Your task to perform on an android device: turn on translation in the chrome app Image 0: 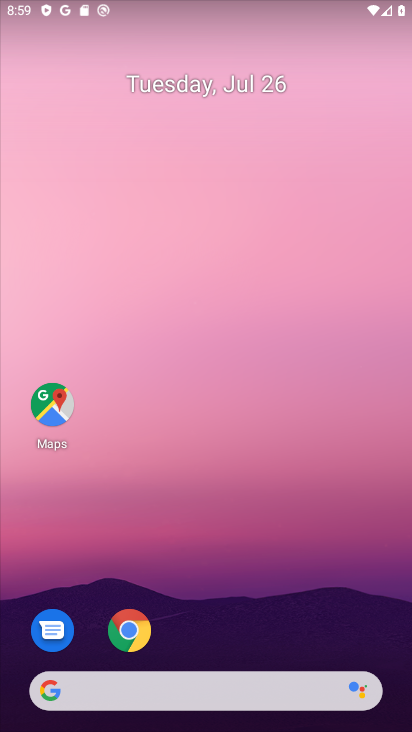
Step 0: click (123, 631)
Your task to perform on an android device: turn on translation in the chrome app Image 1: 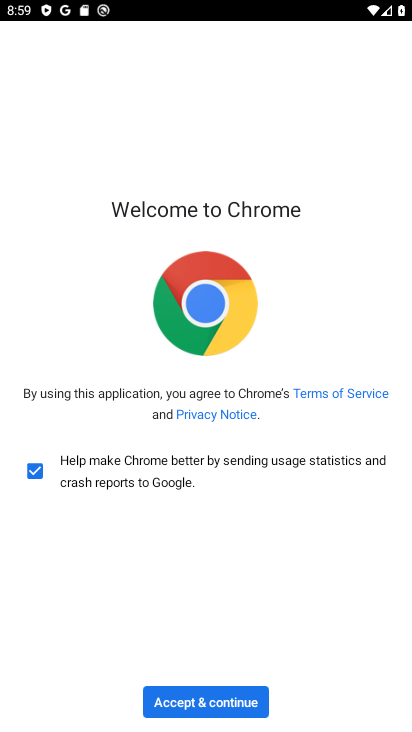
Step 1: click (249, 710)
Your task to perform on an android device: turn on translation in the chrome app Image 2: 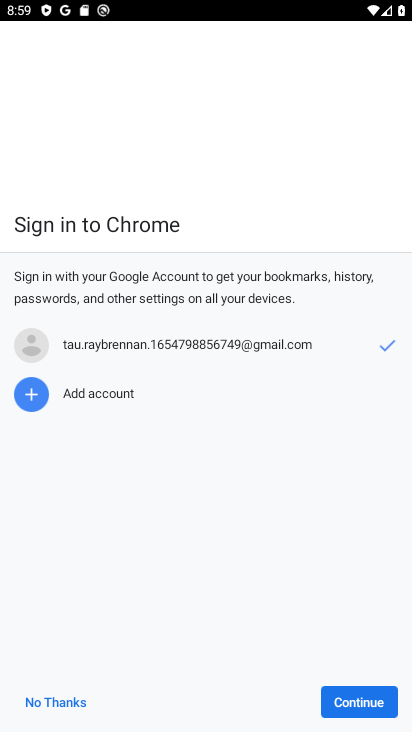
Step 2: click (340, 703)
Your task to perform on an android device: turn on translation in the chrome app Image 3: 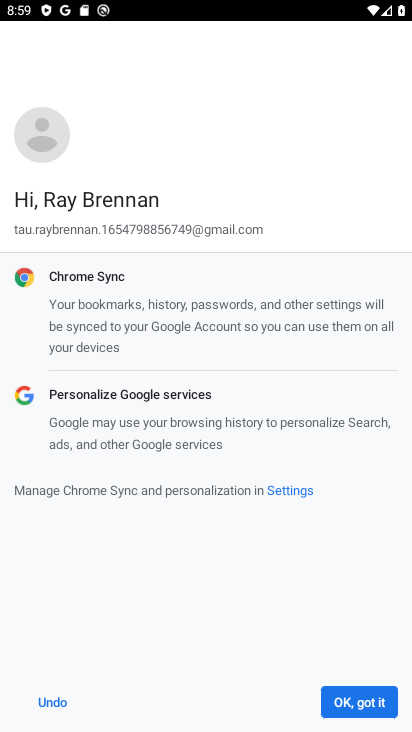
Step 3: click (340, 703)
Your task to perform on an android device: turn on translation in the chrome app Image 4: 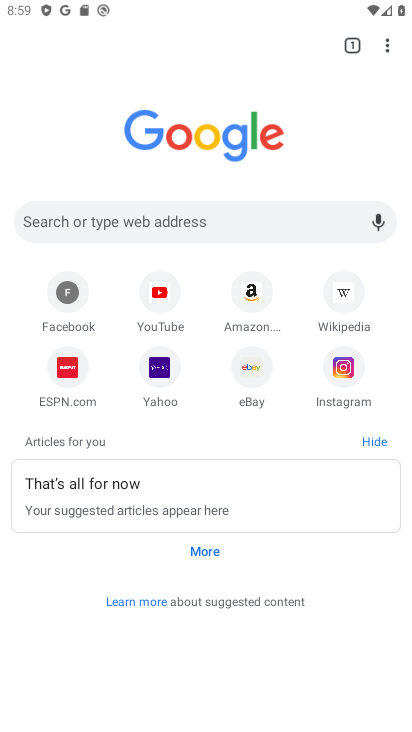
Step 4: click (390, 41)
Your task to perform on an android device: turn on translation in the chrome app Image 5: 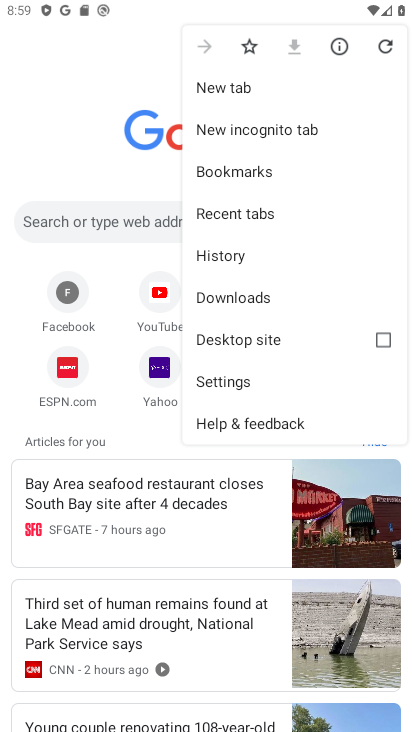
Step 5: click (240, 380)
Your task to perform on an android device: turn on translation in the chrome app Image 6: 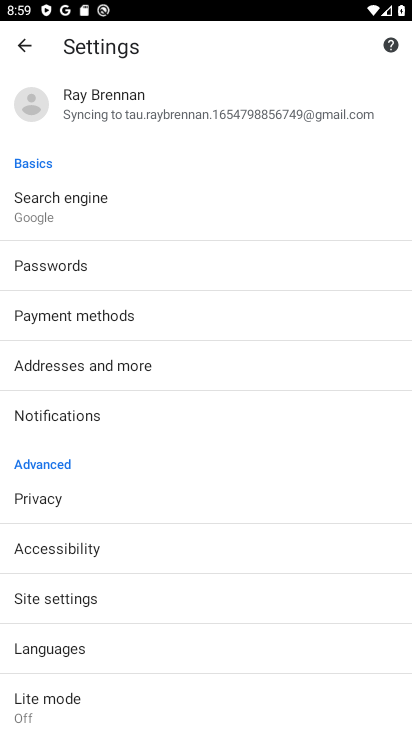
Step 6: click (228, 660)
Your task to perform on an android device: turn on translation in the chrome app Image 7: 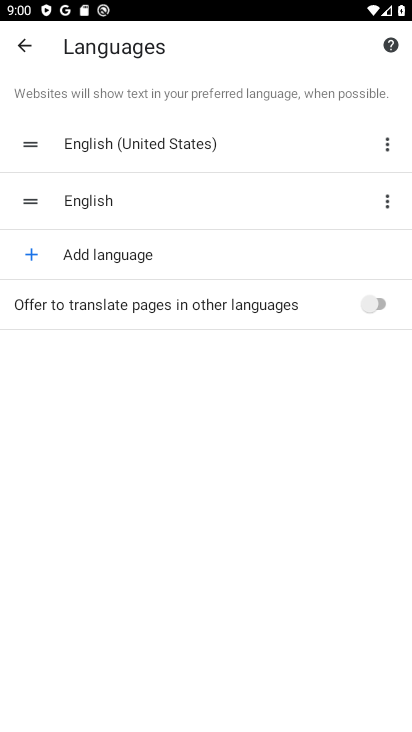
Step 7: click (347, 323)
Your task to perform on an android device: turn on translation in the chrome app Image 8: 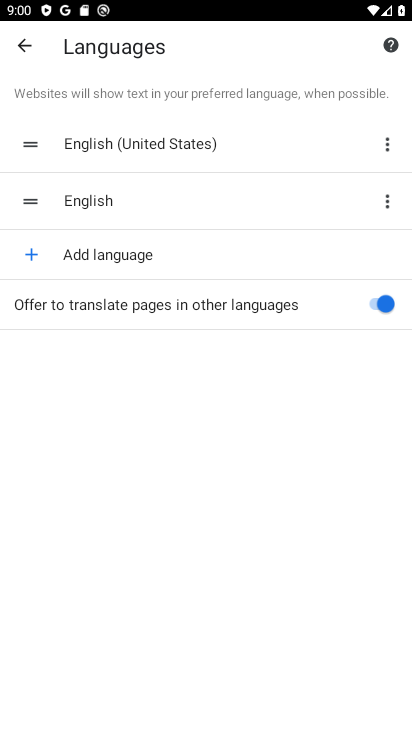
Step 8: task complete